Your task to perform on an android device: change text size in settings app Image 0: 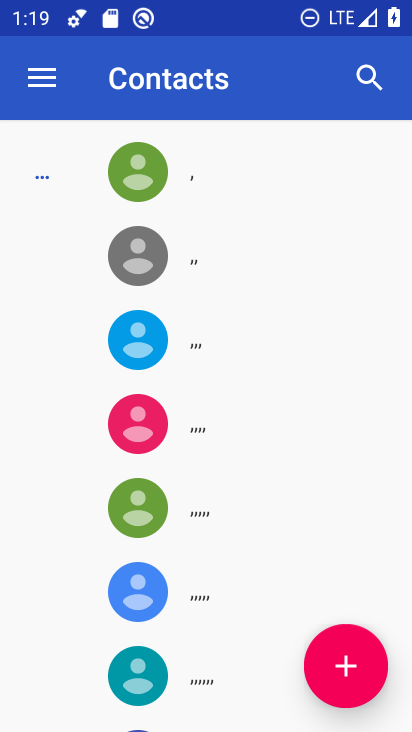
Step 0: press home button
Your task to perform on an android device: change text size in settings app Image 1: 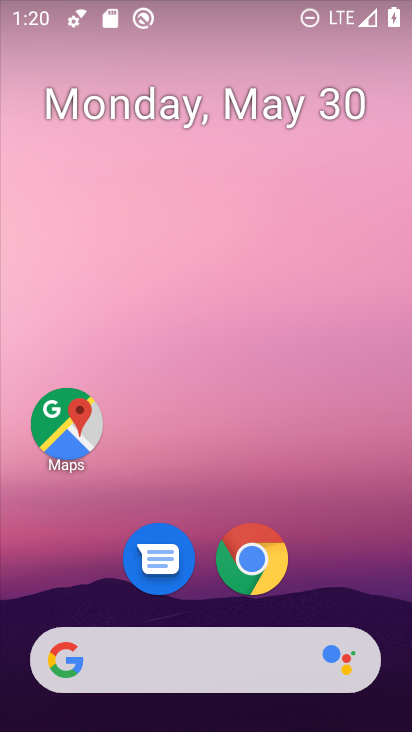
Step 1: drag from (338, 618) to (353, 35)
Your task to perform on an android device: change text size in settings app Image 2: 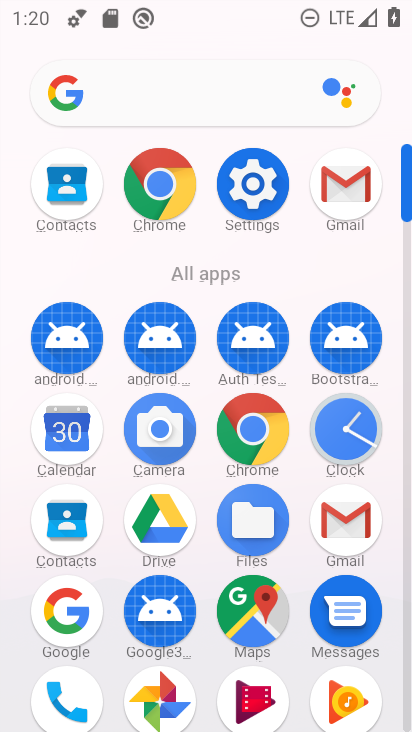
Step 2: click (237, 191)
Your task to perform on an android device: change text size in settings app Image 3: 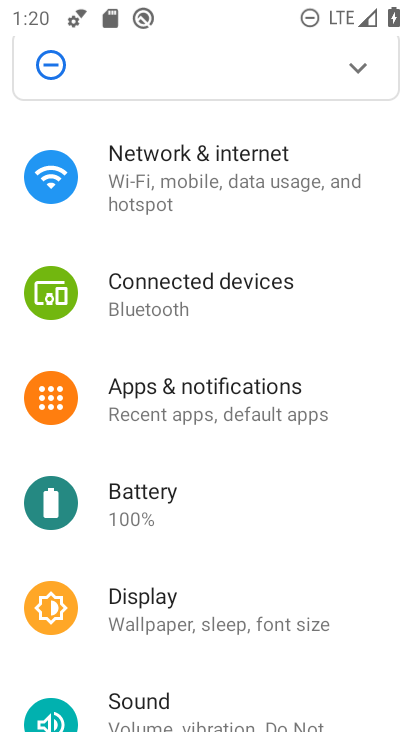
Step 3: click (235, 621)
Your task to perform on an android device: change text size in settings app Image 4: 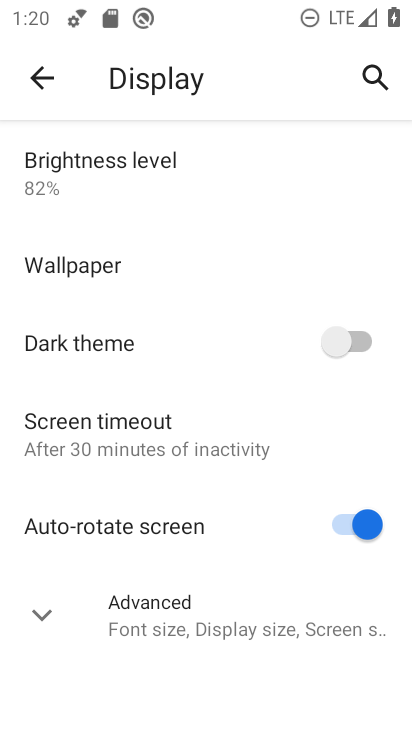
Step 4: click (222, 635)
Your task to perform on an android device: change text size in settings app Image 5: 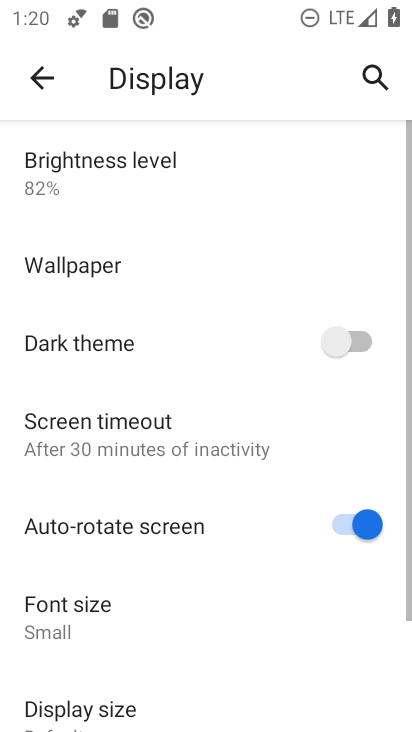
Step 5: click (77, 623)
Your task to perform on an android device: change text size in settings app Image 6: 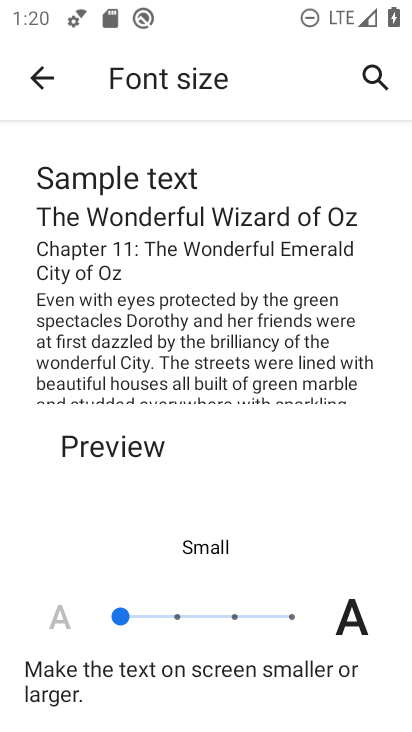
Step 6: click (170, 619)
Your task to perform on an android device: change text size in settings app Image 7: 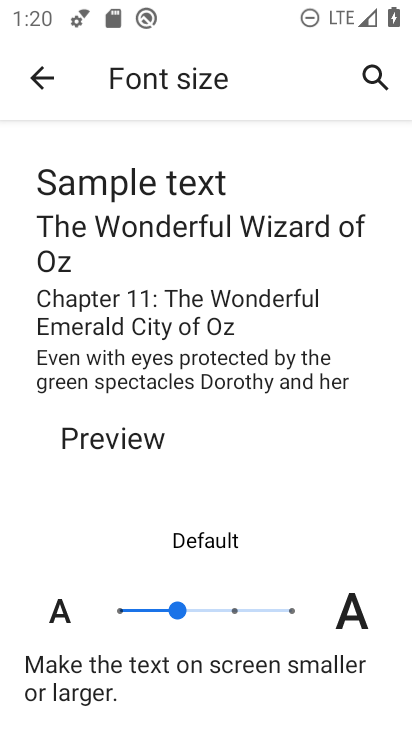
Step 7: task complete